Your task to perform on an android device: find snoozed emails in the gmail app Image 0: 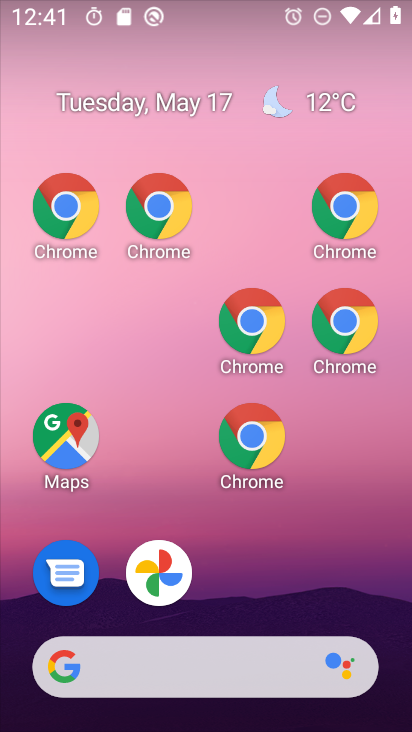
Step 0: drag from (292, 596) to (232, 148)
Your task to perform on an android device: find snoozed emails in the gmail app Image 1: 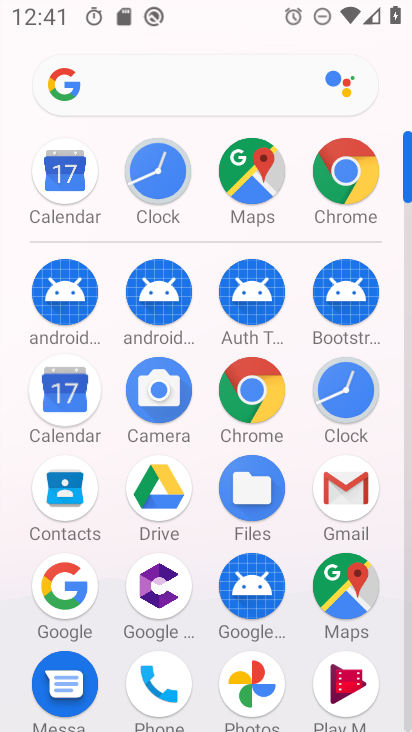
Step 1: click (344, 488)
Your task to perform on an android device: find snoozed emails in the gmail app Image 2: 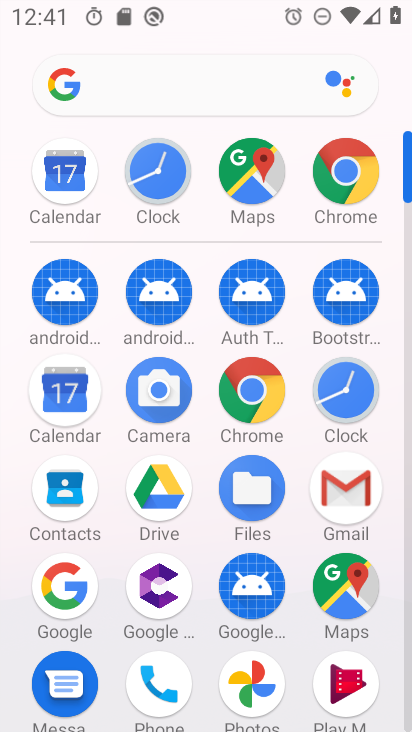
Step 2: click (343, 487)
Your task to perform on an android device: find snoozed emails in the gmail app Image 3: 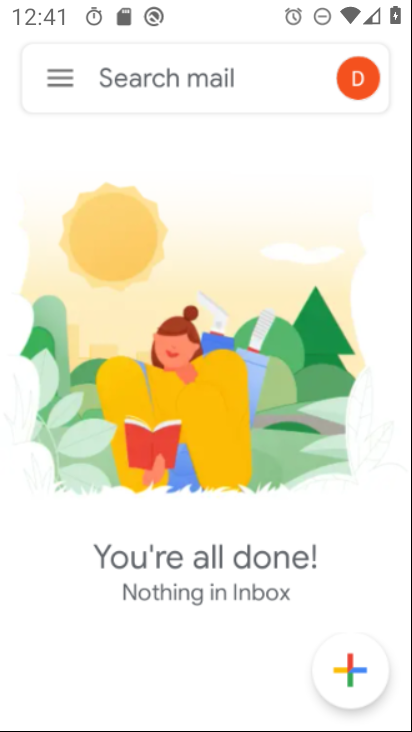
Step 3: click (343, 487)
Your task to perform on an android device: find snoozed emails in the gmail app Image 4: 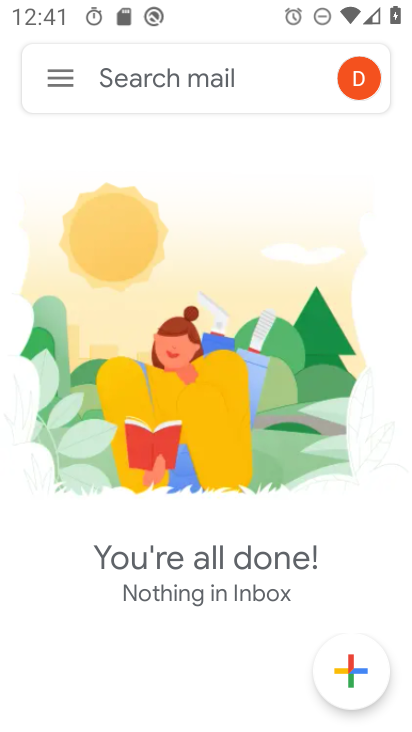
Step 4: click (56, 65)
Your task to perform on an android device: find snoozed emails in the gmail app Image 5: 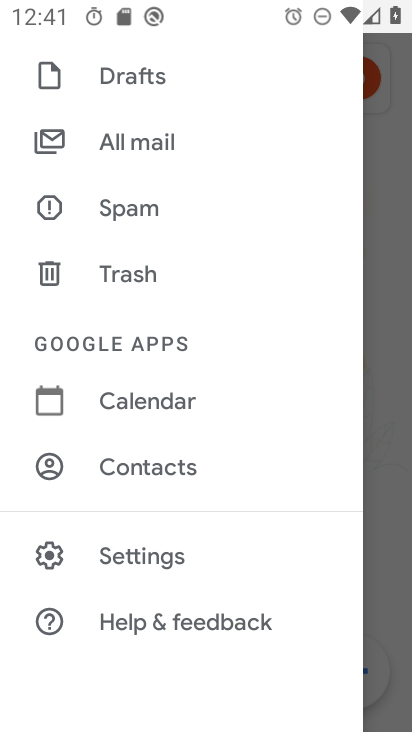
Step 5: drag from (134, 165) to (185, 532)
Your task to perform on an android device: find snoozed emails in the gmail app Image 6: 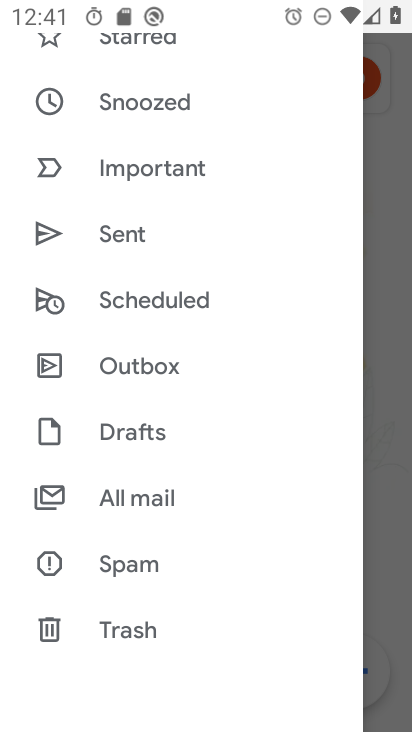
Step 6: click (142, 104)
Your task to perform on an android device: find snoozed emails in the gmail app Image 7: 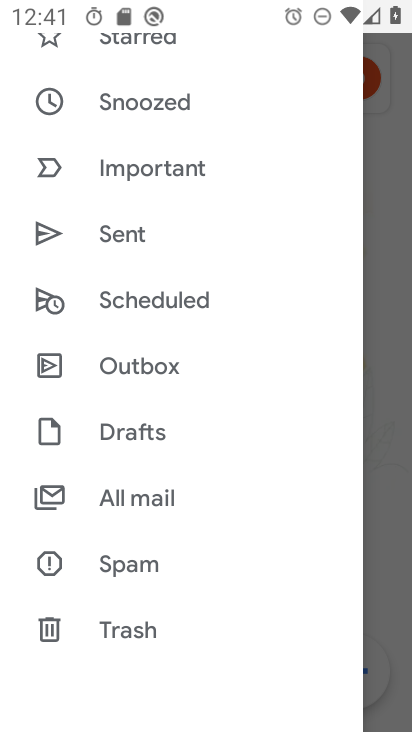
Step 7: click (145, 105)
Your task to perform on an android device: find snoozed emails in the gmail app Image 8: 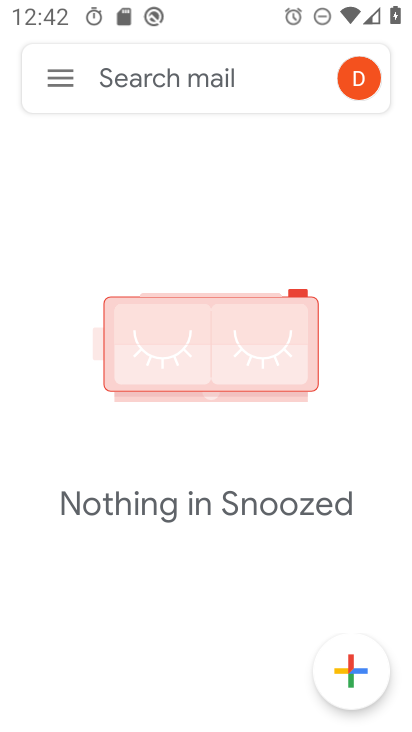
Step 8: task complete